Your task to perform on an android device: empty trash in google photos Image 0: 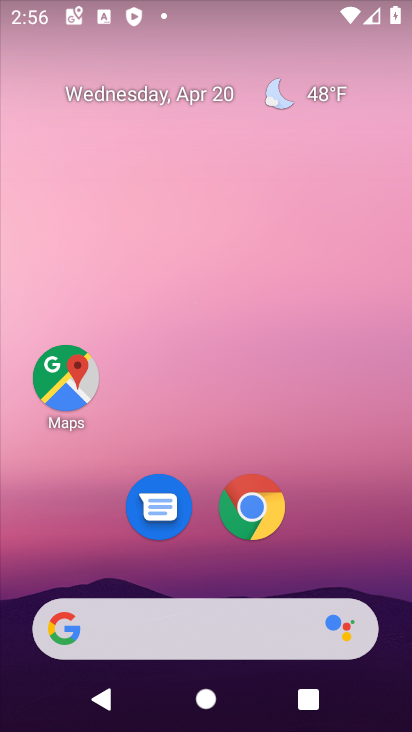
Step 0: click (269, 493)
Your task to perform on an android device: empty trash in google photos Image 1: 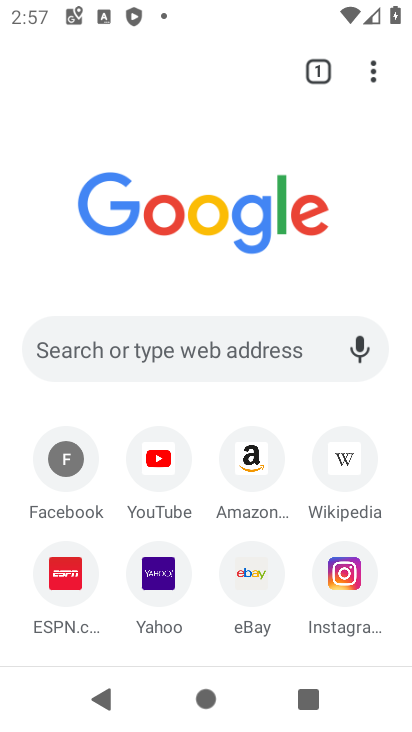
Step 1: click (376, 67)
Your task to perform on an android device: empty trash in google photos Image 2: 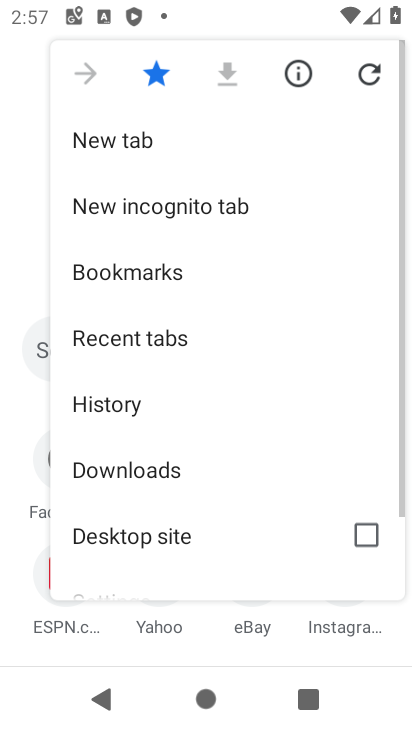
Step 2: drag from (288, 536) to (279, 145)
Your task to perform on an android device: empty trash in google photos Image 3: 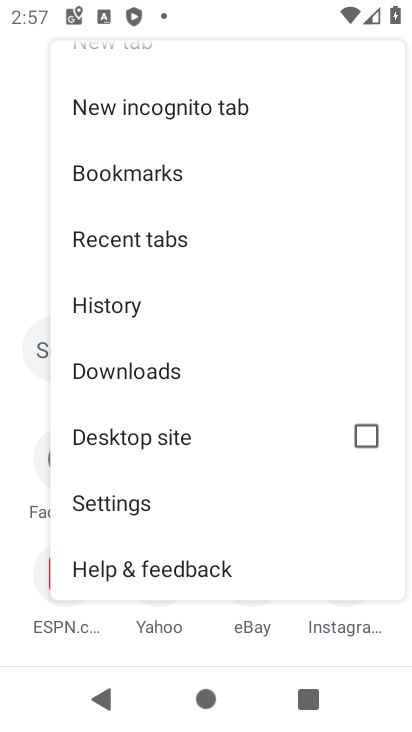
Step 3: press home button
Your task to perform on an android device: empty trash in google photos Image 4: 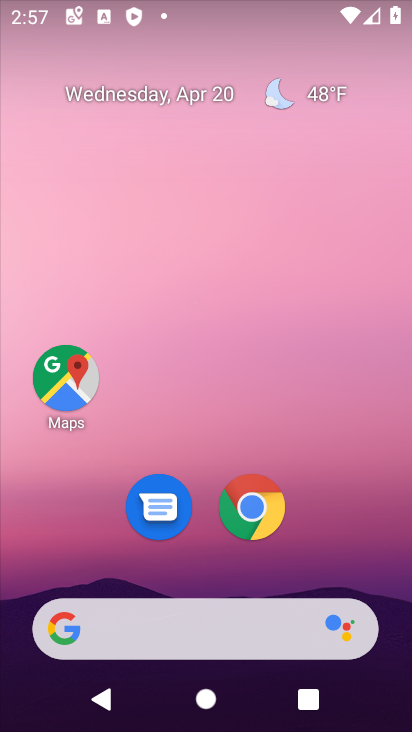
Step 4: drag from (198, 338) to (169, 49)
Your task to perform on an android device: empty trash in google photos Image 5: 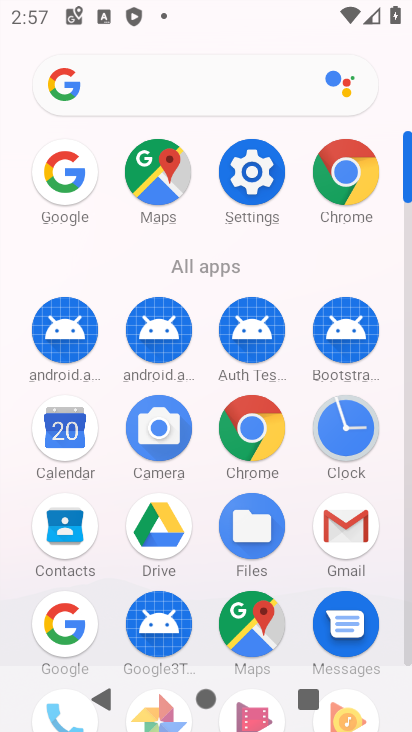
Step 5: drag from (208, 647) to (189, 336)
Your task to perform on an android device: empty trash in google photos Image 6: 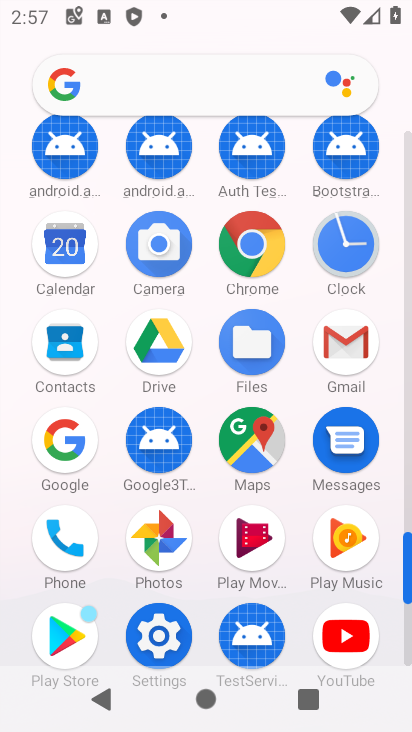
Step 6: click (172, 527)
Your task to perform on an android device: empty trash in google photos Image 7: 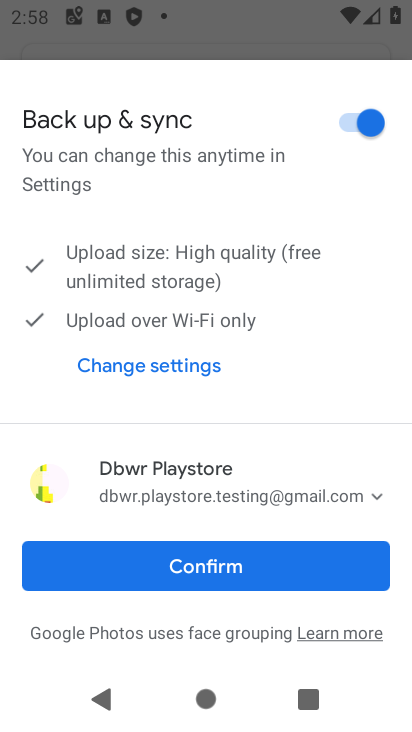
Step 7: click (212, 563)
Your task to perform on an android device: empty trash in google photos Image 8: 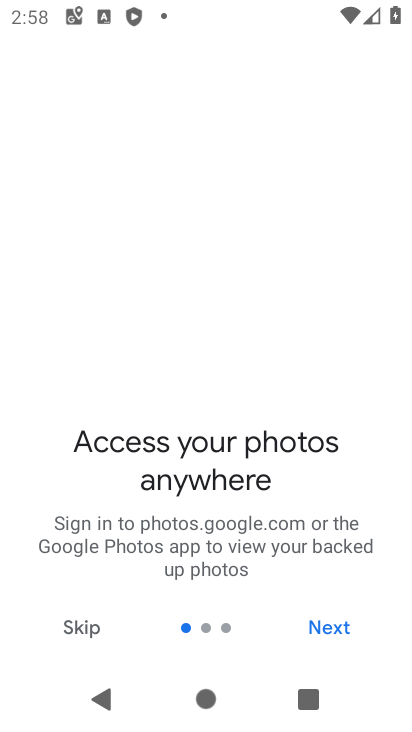
Step 8: click (319, 627)
Your task to perform on an android device: empty trash in google photos Image 9: 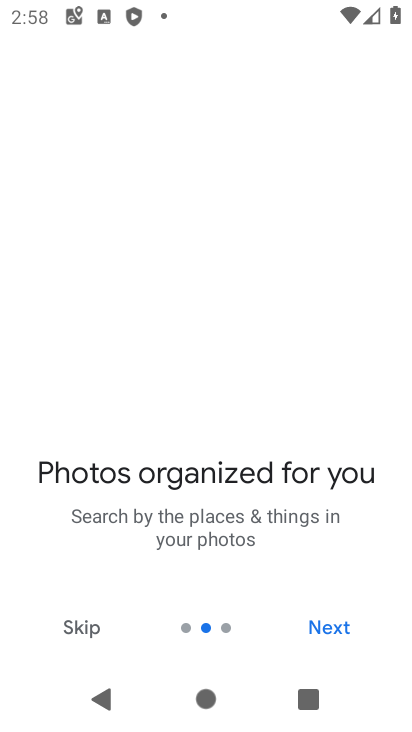
Step 9: click (319, 627)
Your task to perform on an android device: empty trash in google photos Image 10: 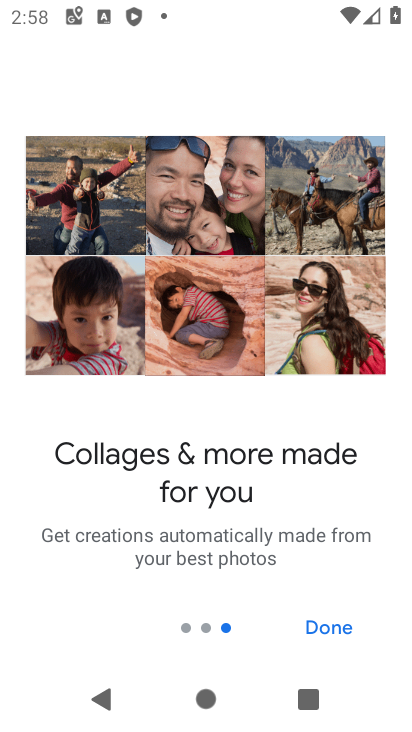
Step 10: click (319, 627)
Your task to perform on an android device: empty trash in google photos Image 11: 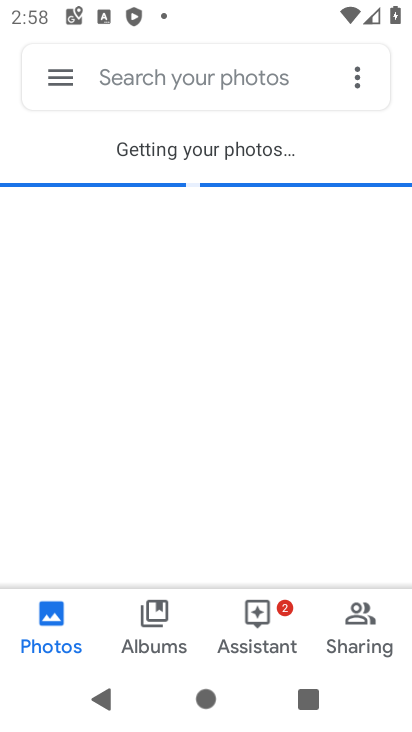
Step 11: click (58, 79)
Your task to perform on an android device: empty trash in google photos Image 12: 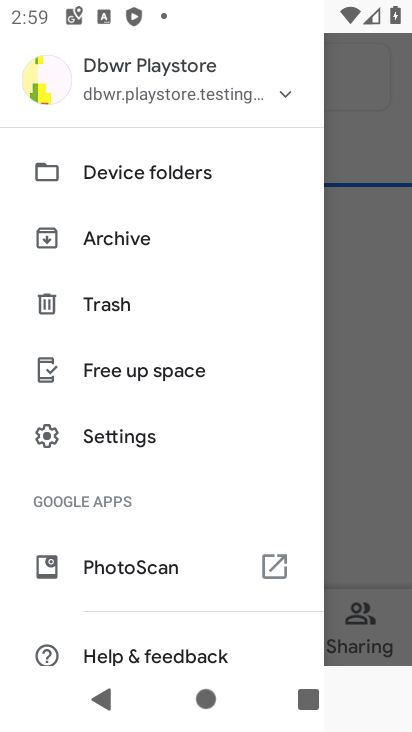
Step 12: click (123, 309)
Your task to perform on an android device: empty trash in google photos Image 13: 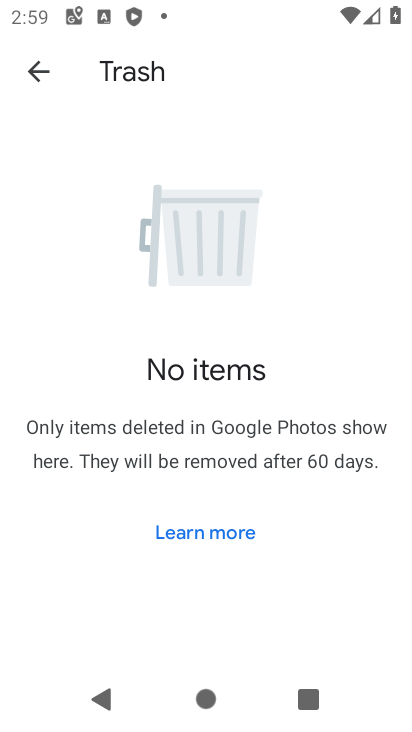
Step 13: task complete